Your task to perform on an android device: turn off smart reply in the gmail app Image 0: 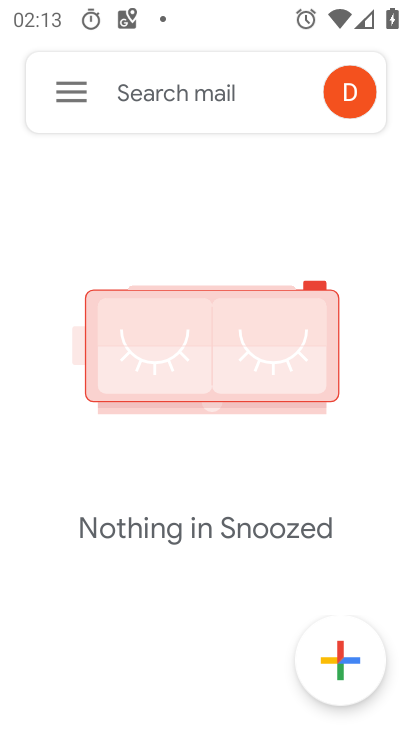
Step 0: click (48, 91)
Your task to perform on an android device: turn off smart reply in the gmail app Image 1: 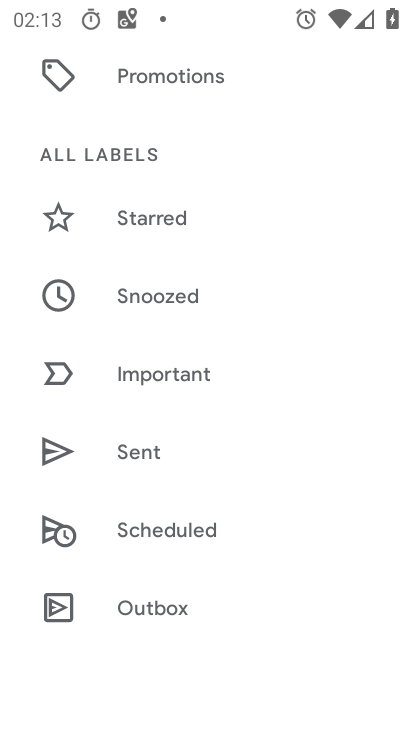
Step 1: drag from (314, 505) to (318, 414)
Your task to perform on an android device: turn off smart reply in the gmail app Image 2: 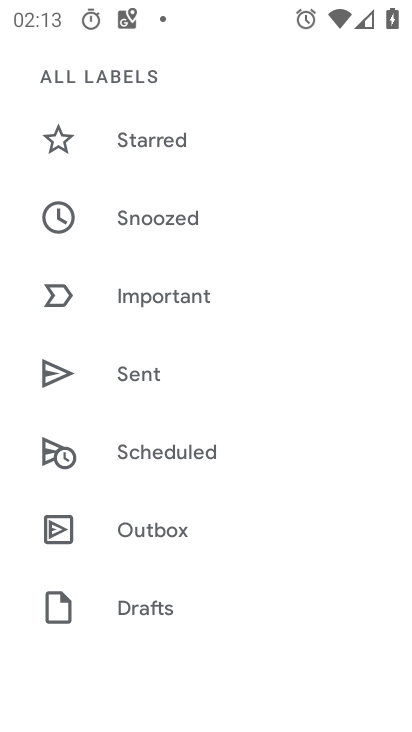
Step 2: drag from (332, 540) to (333, 506)
Your task to perform on an android device: turn off smart reply in the gmail app Image 3: 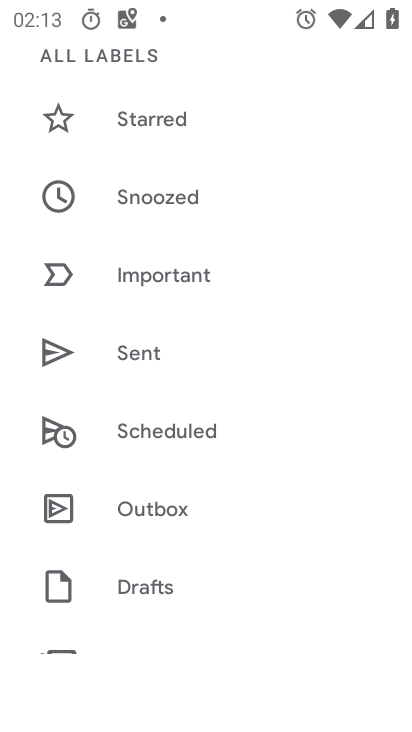
Step 3: drag from (310, 572) to (300, 435)
Your task to perform on an android device: turn off smart reply in the gmail app Image 4: 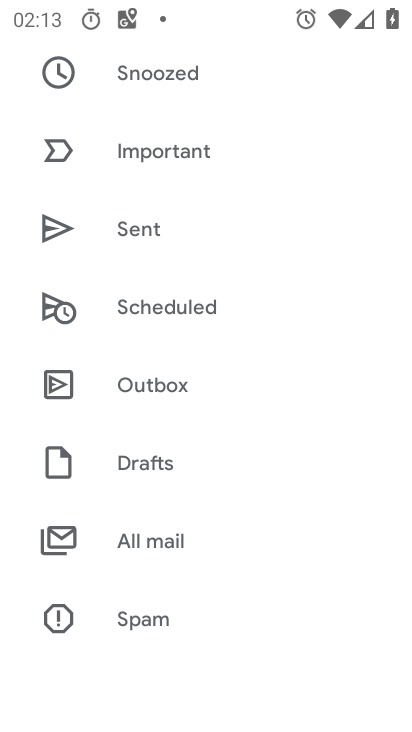
Step 4: drag from (308, 592) to (311, 495)
Your task to perform on an android device: turn off smart reply in the gmail app Image 5: 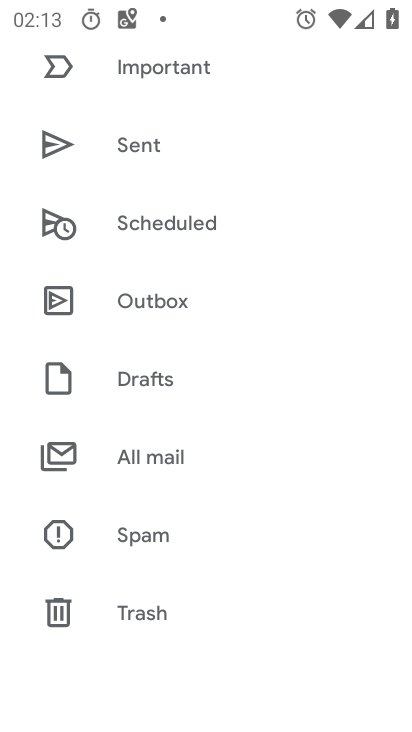
Step 5: drag from (309, 635) to (309, 516)
Your task to perform on an android device: turn off smart reply in the gmail app Image 6: 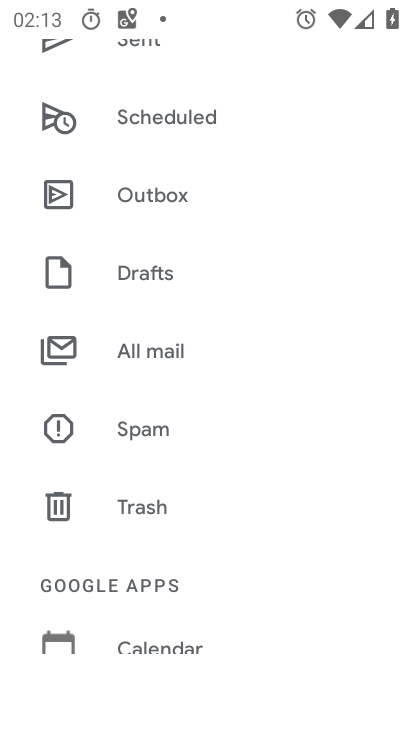
Step 6: drag from (299, 639) to (312, 515)
Your task to perform on an android device: turn off smart reply in the gmail app Image 7: 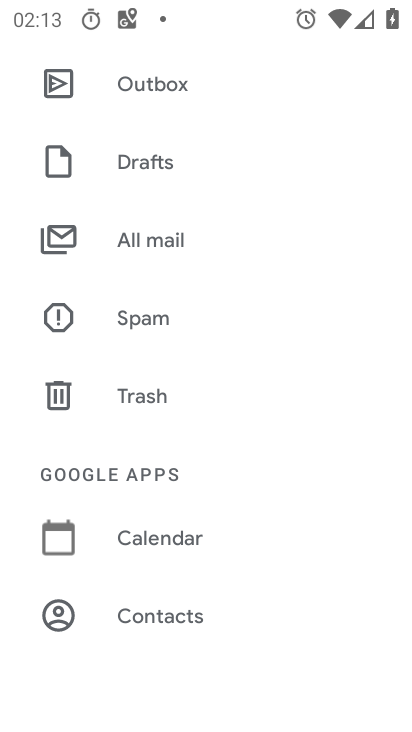
Step 7: drag from (308, 636) to (308, 518)
Your task to perform on an android device: turn off smart reply in the gmail app Image 8: 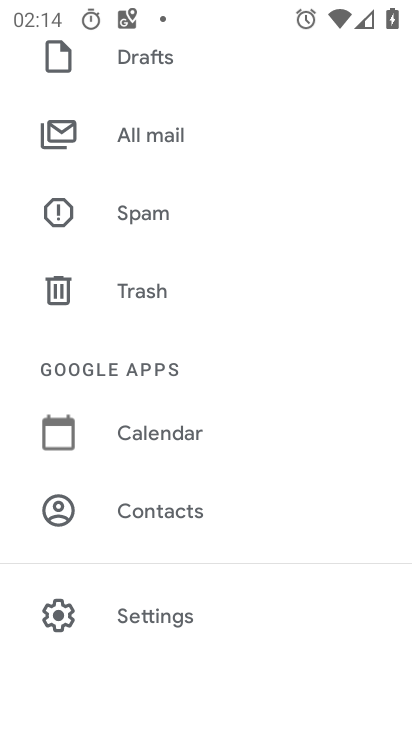
Step 8: drag from (290, 594) to (303, 463)
Your task to perform on an android device: turn off smart reply in the gmail app Image 9: 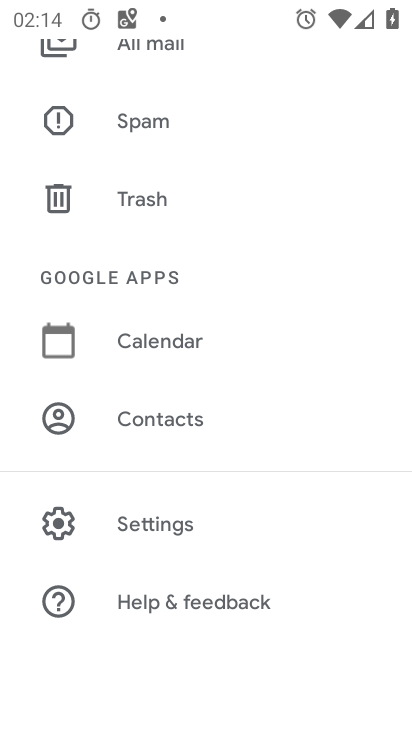
Step 9: click (230, 522)
Your task to perform on an android device: turn off smart reply in the gmail app Image 10: 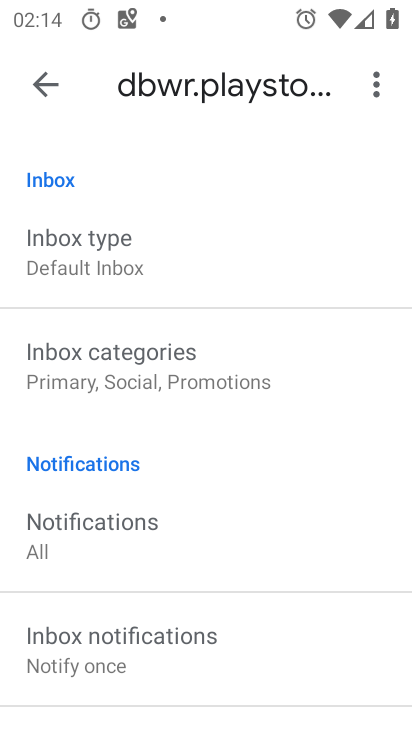
Step 10: drag from (284, 553) to (295, 489)
Your task to perform on an android device: turn off smart reply in the gmail app Image 11: 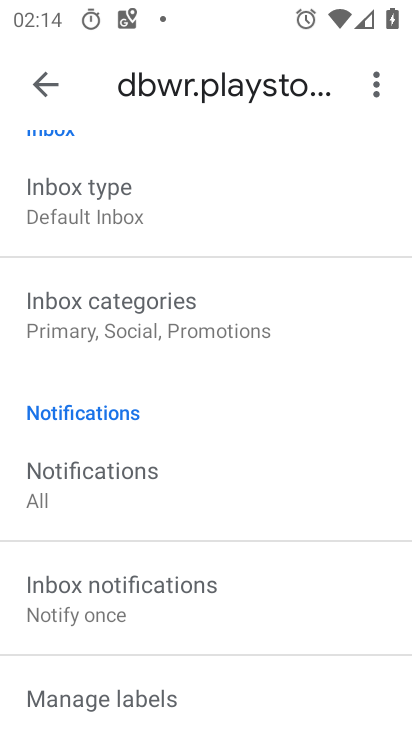
Step 11: drag from (305, 599) to (308, 512)
Your task to perform on an android device: turn off smart reply in the gmail app Image 12: 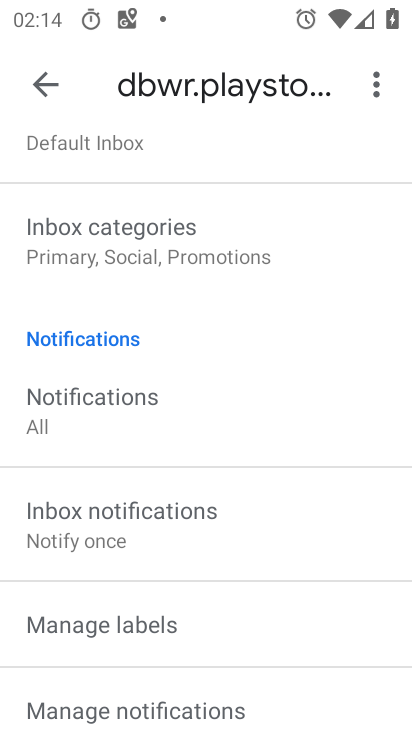
Step 12: drag from (308, 629) to (309, 550)
Your task to perform on an android device: turn off smart reply in the gmail app Image 13: 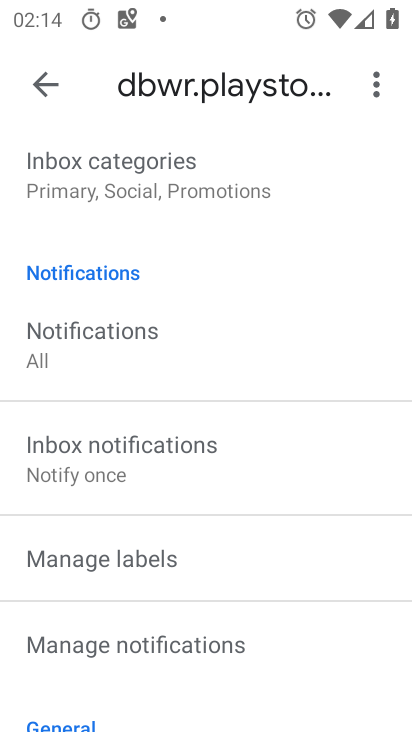
Step 13: drag from (300, 632) to (300, 560)
Your task to perform on an android device: turn off smart reply in the gmail app Image 14: 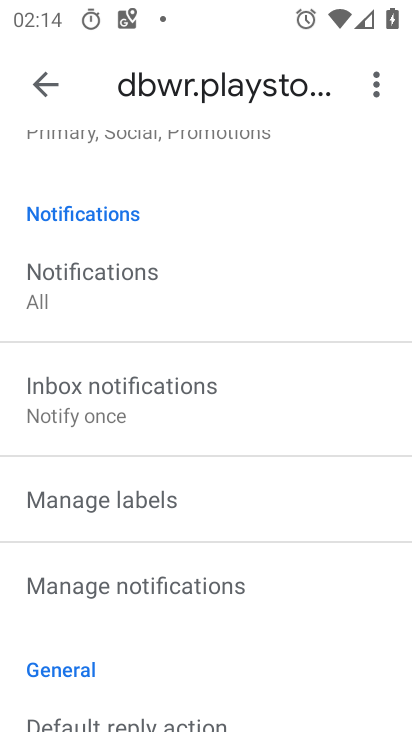
Step 14: drag from (297, 634) to (297, 572)
Your task to perform on an android device: turn off smart reply in the gmail app Image 15: 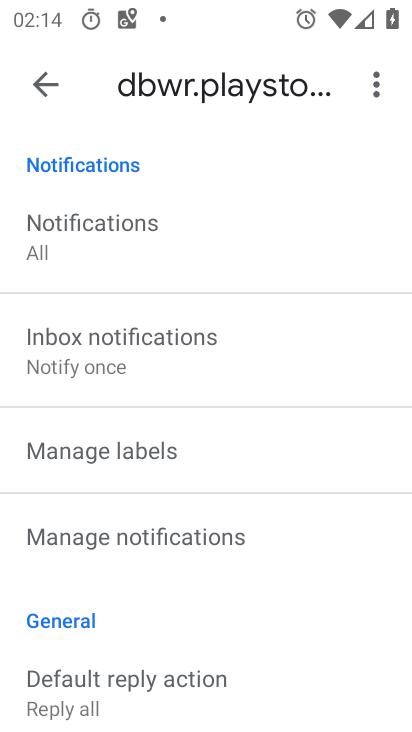
Step 15: drag from (297, 615) to (302, 569)
Your task to perform on an android device: turn off smart reply in the gmail app Image 16: 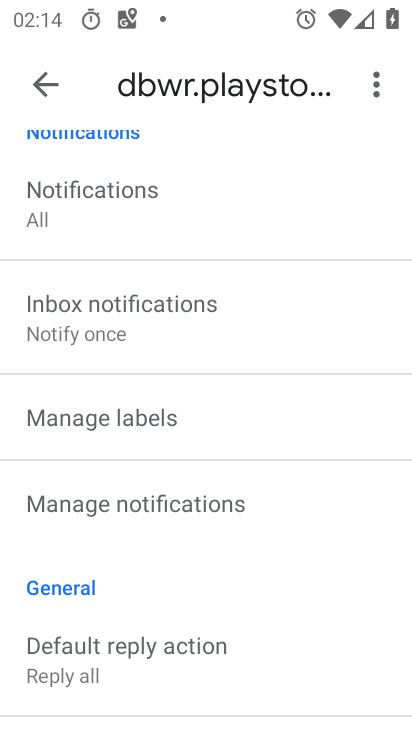
Step 16: drag from (302, 619) to (303, 571)
Your task to perform on an android device: turn off smart reply in the gmail app Image 17: 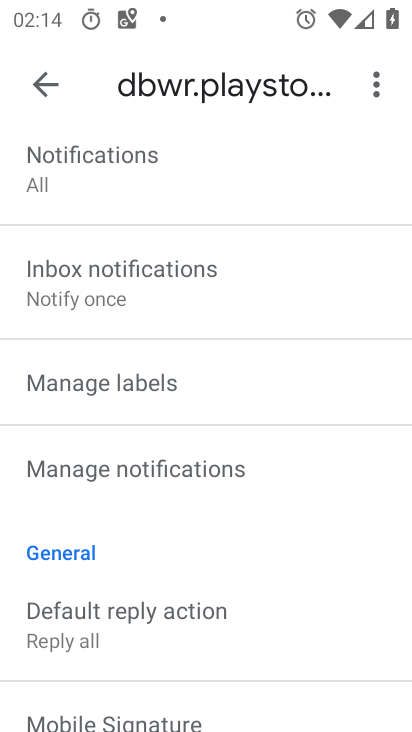
Step 17: drag from (311, 635) to (318, 544)
Your task to perform on an android device: turn off smart reply in the gmail app Image 18: 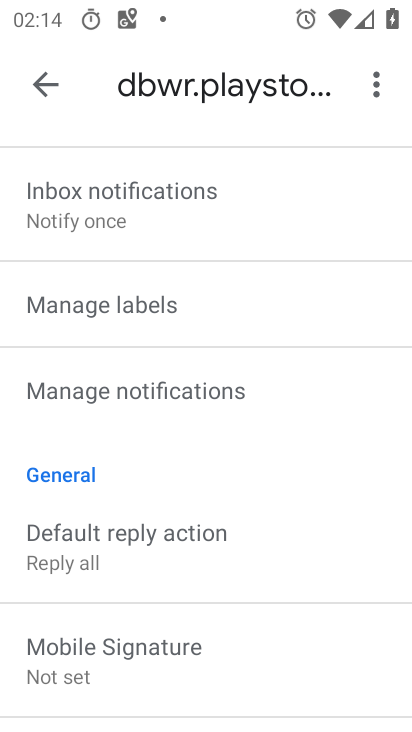
Step 18: drag from (314, 647) to (320, 553)
Your task to perform on an android device: turn off smart reply in the gmail app Image 19: 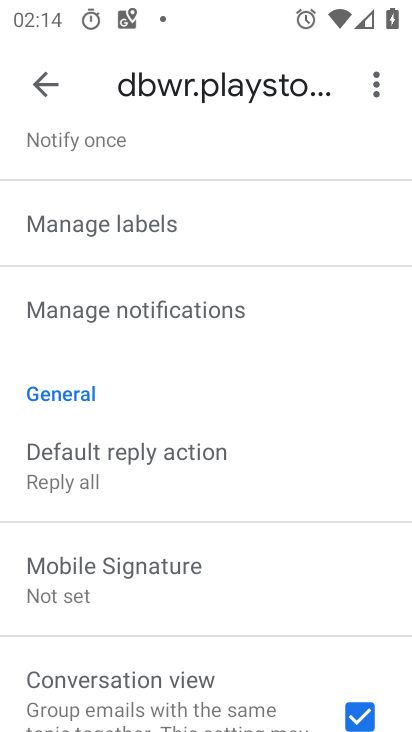
Step 19: drag from (272, 624) to (279, 481)
Your task to perform on an android device: turn off smart reply in the gmail app Image 20: 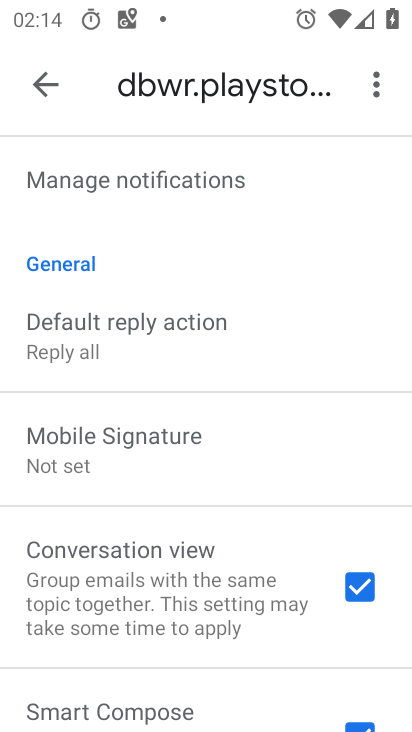
Step 20: drag from (278, 524) to (281, 408)
Your task to perform on an android device: turn off smart reply in the gmail app Image 21: 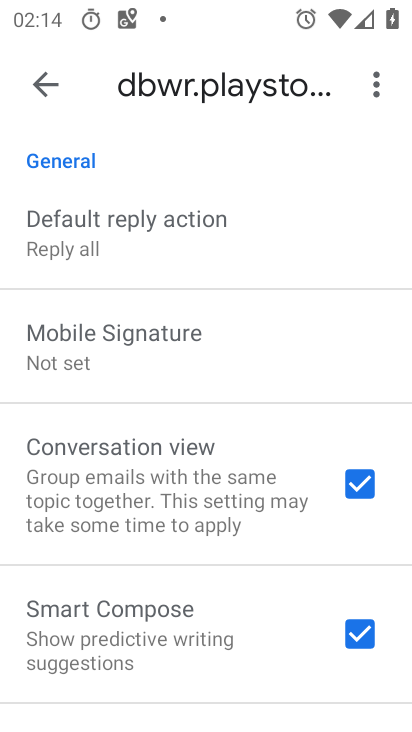
Step 21: drag from (287, 527) to (274, 386)
Your task to perform on an android device: turn off smart reply in the gmail app Image 22: 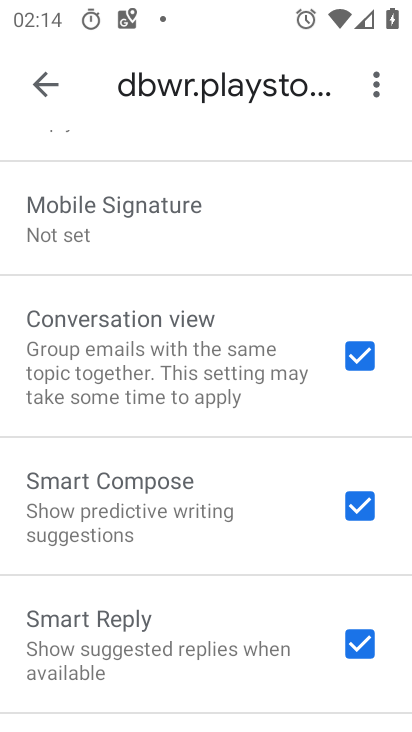
Step 22: drag from (254, 551) to (252, 374)
Your task to perform on an android device: turn off smart reply in the gmail app Image 23: 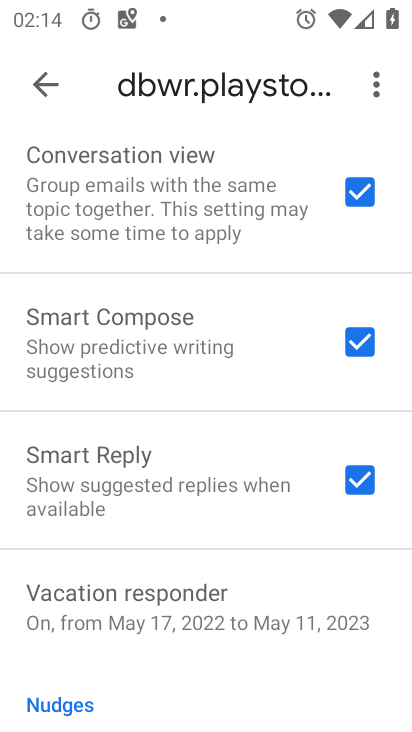
Step 23: drag from (237, 552) to (237, 459)
Your task to perform on an android device: turn off smart reply in the gmail app Image 24: 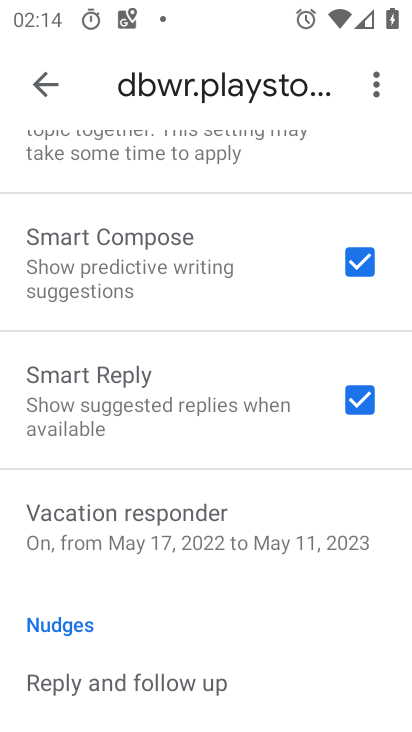
Step 24: click (355, 407)
Your task to perform on an android device: turn off smart reply in the gmail app Image 25: 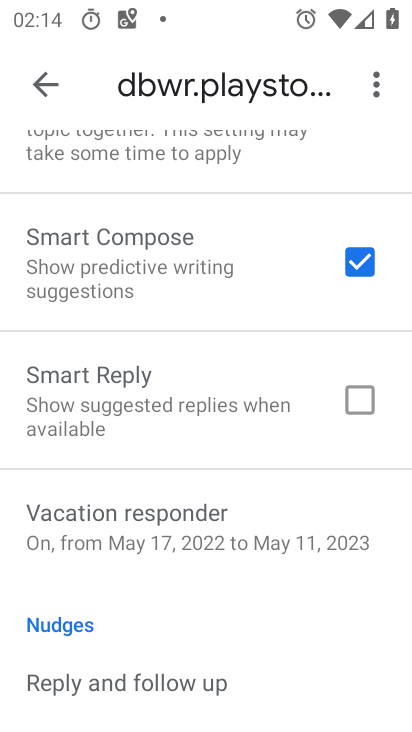
Step 25: task complete